Your task to perform on an android device: Show me productivity apps on the Play Store Image 0: 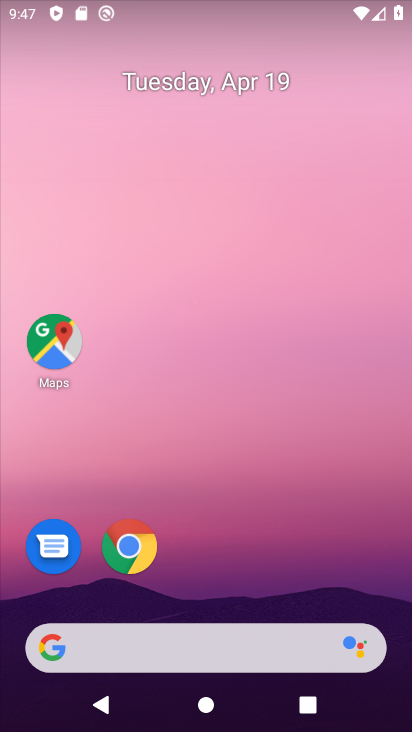
Step 0: drag from (217, 563) to (210, 65)
Your task to perform on an android device: Show me productivity apps on the Play Store Image 1: 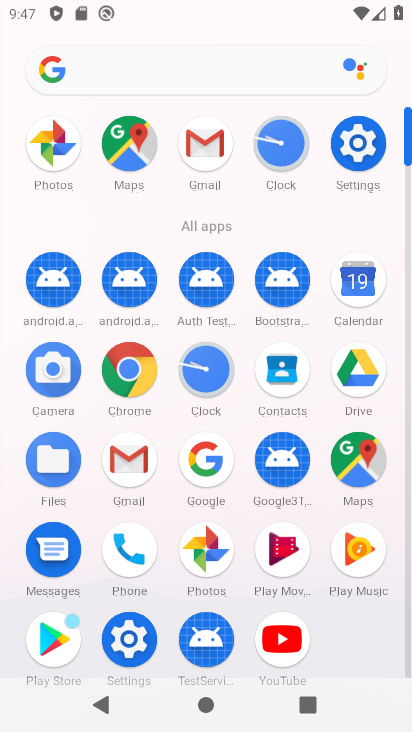
Step 1: click (53, 640)
Your task to perform on an android device: Show me productivity apps on the Play Store Image 2: 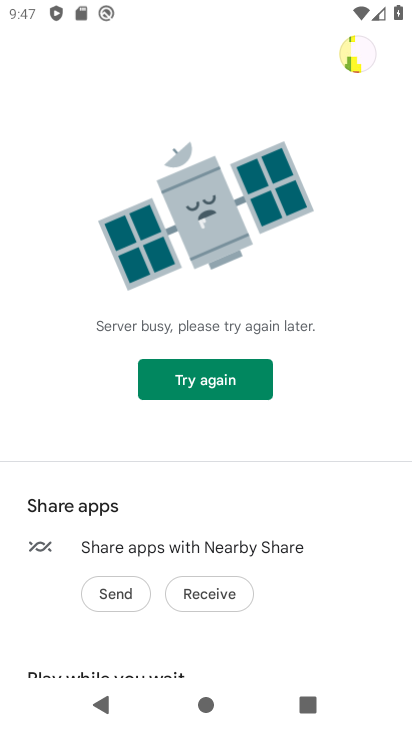
Step 2: drag from (245, 517) to (272, 592)
Your task to perform on an android device: Show me productivity apps on the Play Store Image 3: 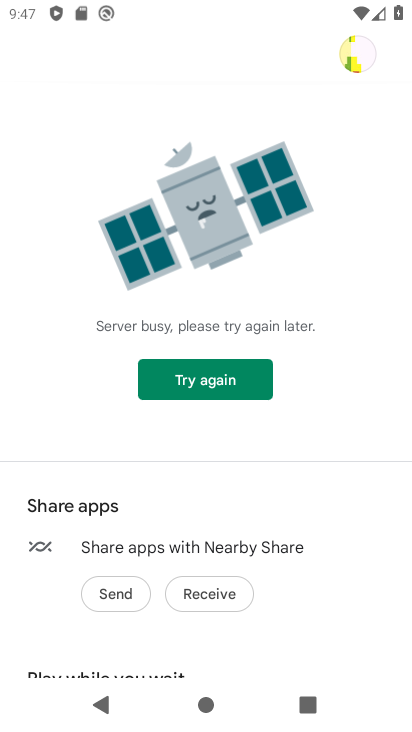
Step 3: click (216, 385)
Your task to perform on an android device: Show me productivity apps on the Play Store Image 4: 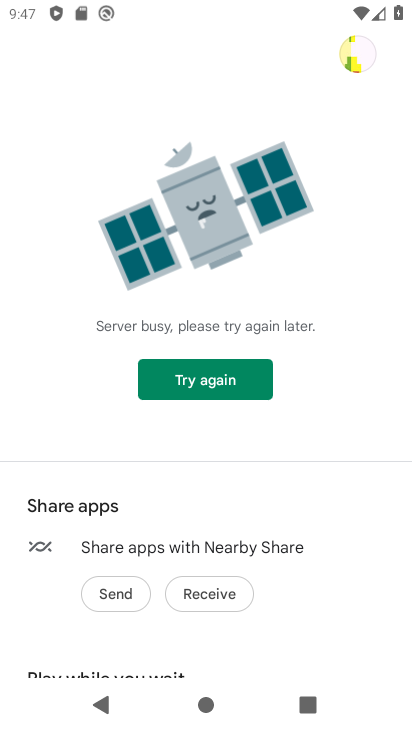
Step 4: task complete